Your task to perform on an android device: change the clock display to show seconds Image 0: 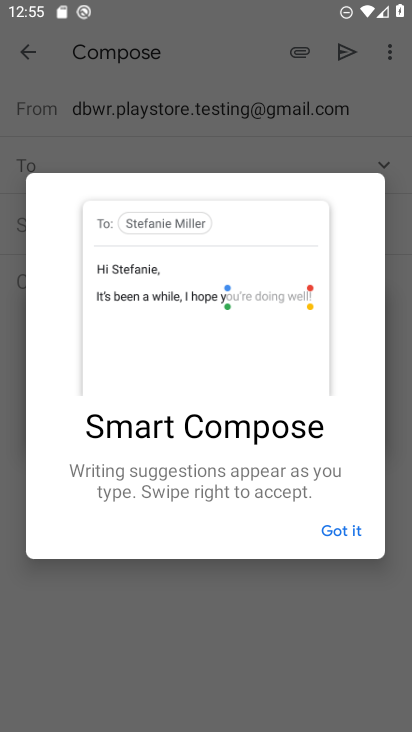
Step 0: press home button
Your task to perform on an android device: change the clock display to show seconds Image 1: 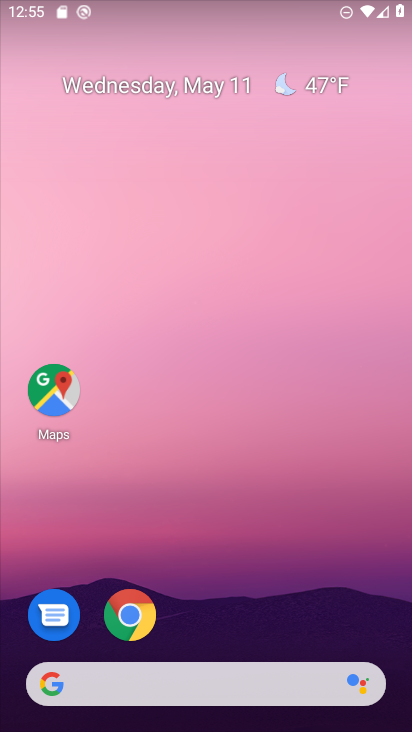
Step 1: drag from (329, 508) to (305, 76)
Your task to perform on an android device: change the clock display to show seconds Image 2: 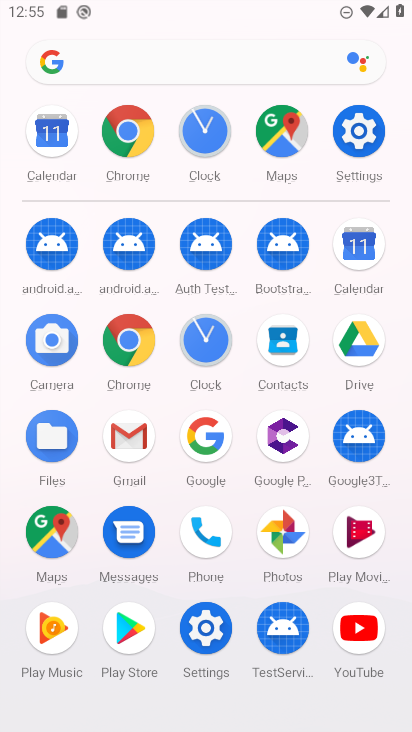
Step 2: click (214, 318)
Your task to perform on an android device: change the clock display to show seconds Image 3: 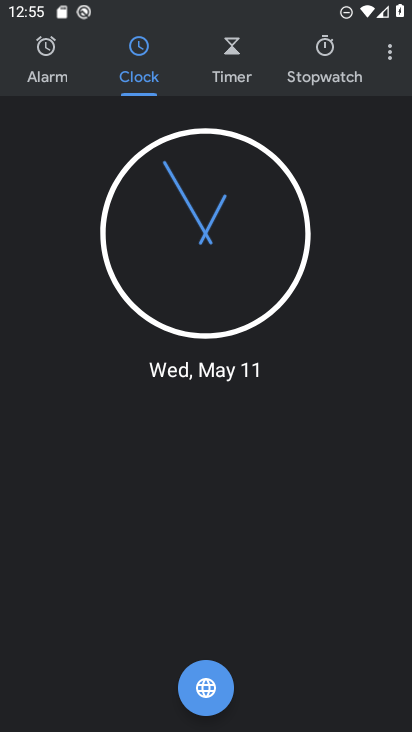
Step 3: click (395, 49)
Your task to perform on an android device: change the clock display to show seconds Image 4: 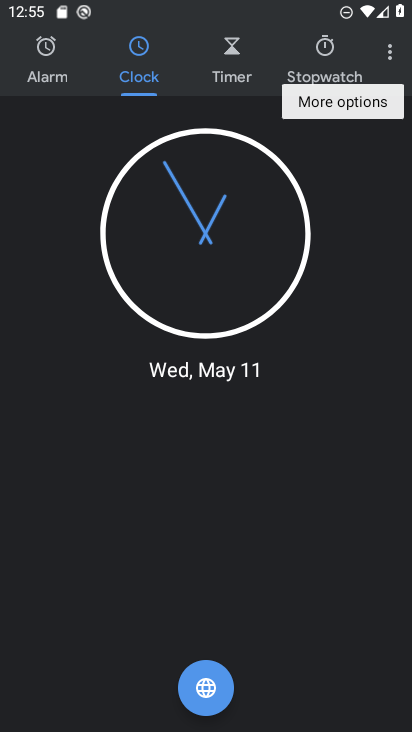
Step 4: click (395, 50)
Your task to perform on an android device: change the clock display to show seconds Image 5: 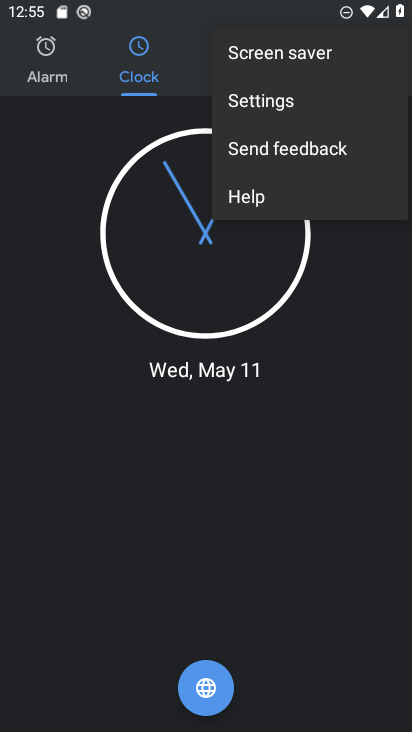
Step 5: click (298, 107)
Your task to perform on an android device: change the clock display to show seconds Image 6: 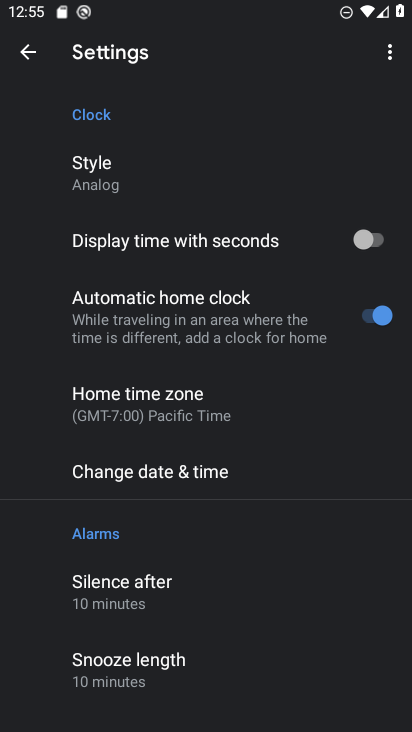
Step 6: click (355, 256)
Your task to perform on an android device: change the clock display to show seconds Image 7: 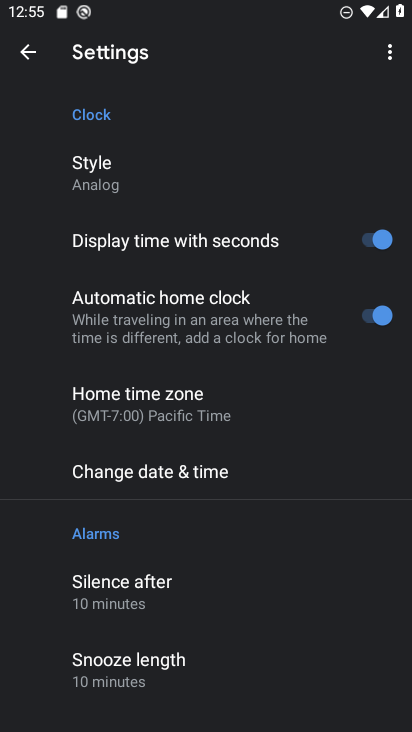
Step 7: task complete